Your task to perform on an android device: open chrome and create a bookmark for the current page Image 0: 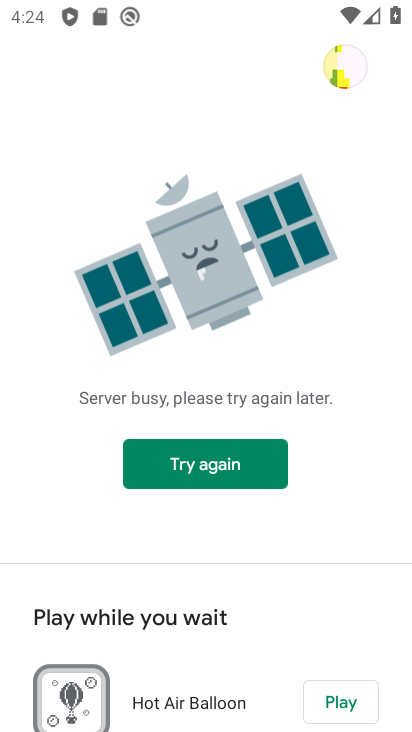
Step 0: press home button
Your task to perform on an android device: open chrome and create a bookmark for the current page Image 1: 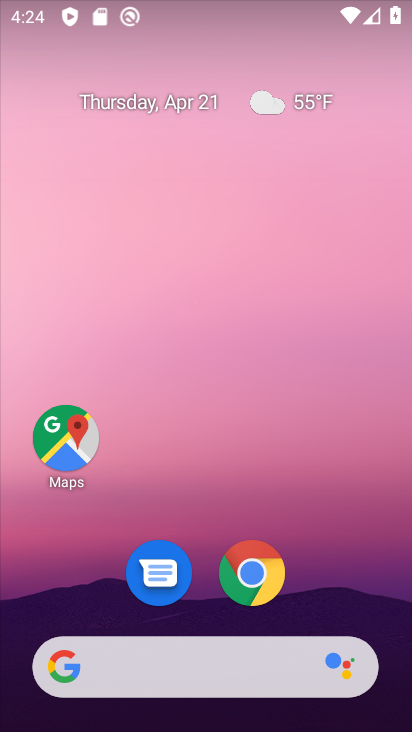
Step 1: drag from (364, 566) to (328, 196)
Your task to perform on an android device: open chrome and create a bookmark for the current page Image 2: 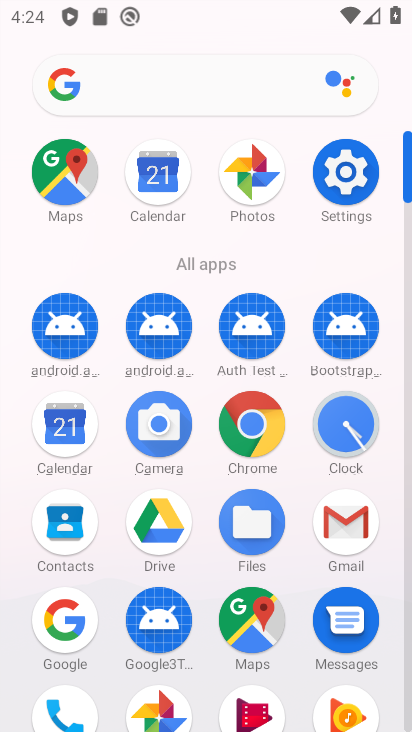
Step 2: click (268, 402)
Your task to perform on an android device: open chrome and create a bookmark for the current page Image 3: 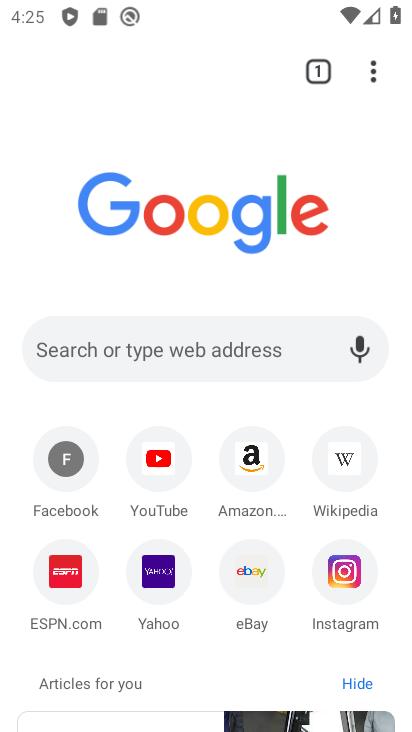
Step 3: click (384, 74)
Your task to perform on an android device: open chrome and create a bookmark for the current page Image 4: 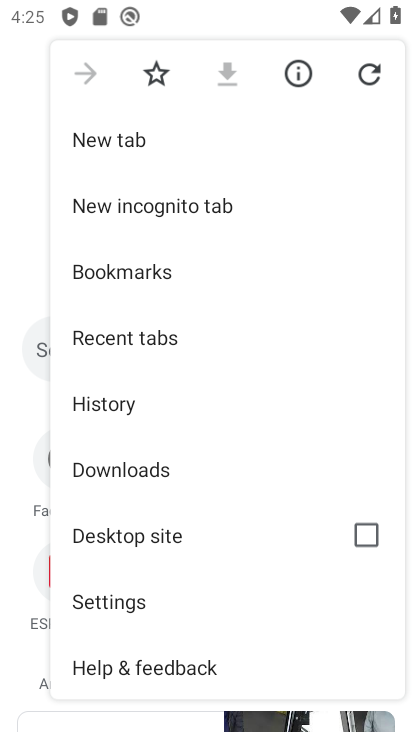
Step 4: click (164, 82)
Your task to perform on an android device: open chrome and create a bookmark for the current page Image 5: 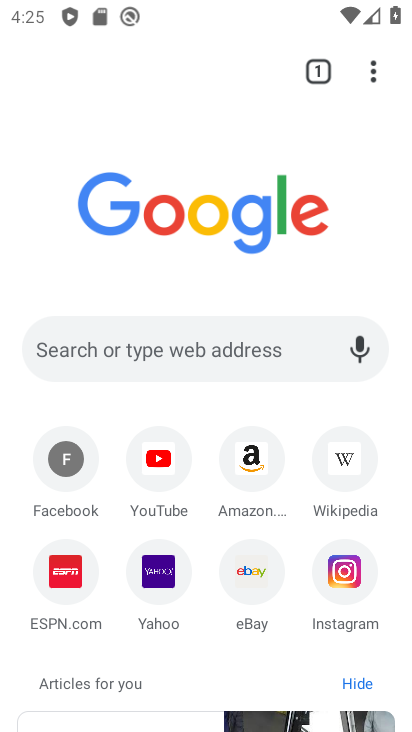
Step 5: task complete